Your task to perform on an android device: When is my next meeting? Image 0: 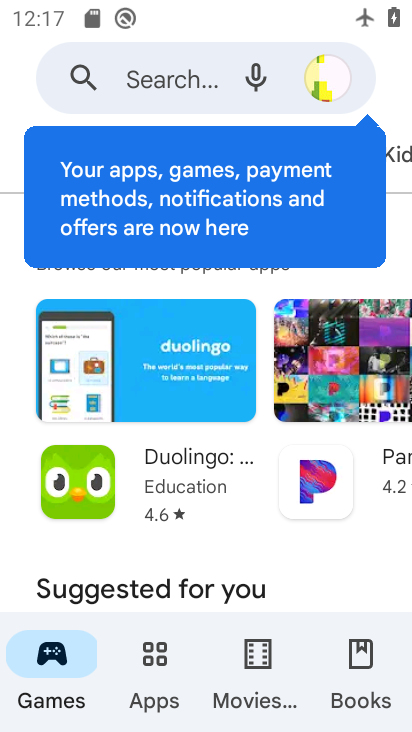
Step 0: press home button
Your task to perform on an android device: When is my next meeting? Image 1: 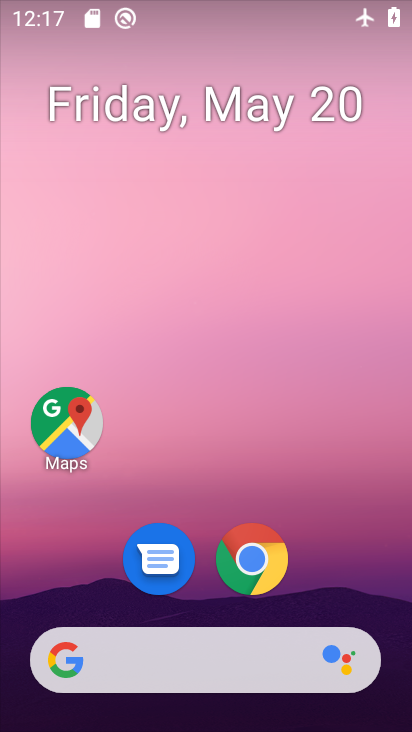
Step 1: drag from (351, 579) to (203, 78)
Your task to perform on an android device: When is my next meeting? Image 2: 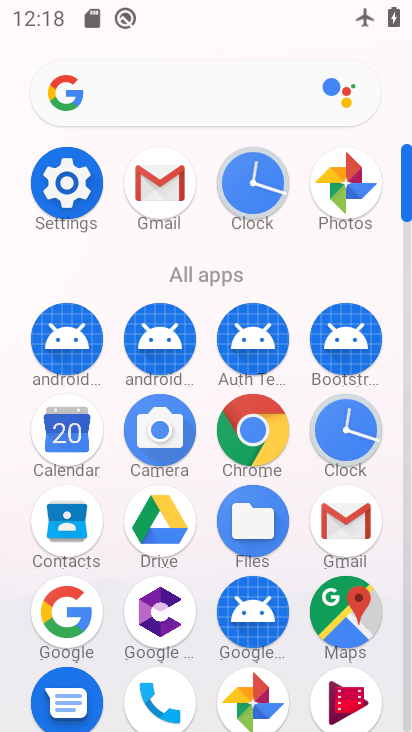
Step 2: click (68, 445)
Your task to perform on an android device: When is my next meeting? Image 3: 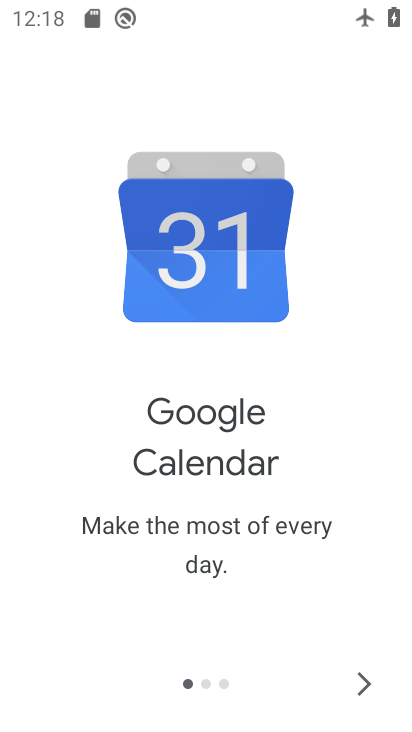
Step 3: click (368, 692)
Your task to perform on an android device: When is my next meeting? Image 4: 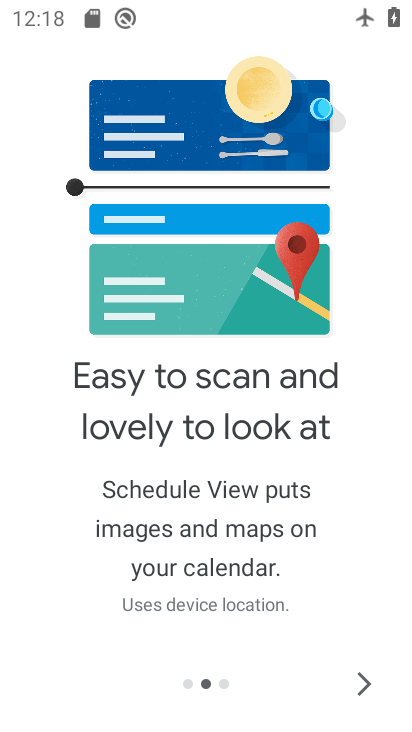
Step 4: click (366, 683)
Your task to perform on an android device: When is my next meeting? Image 5: 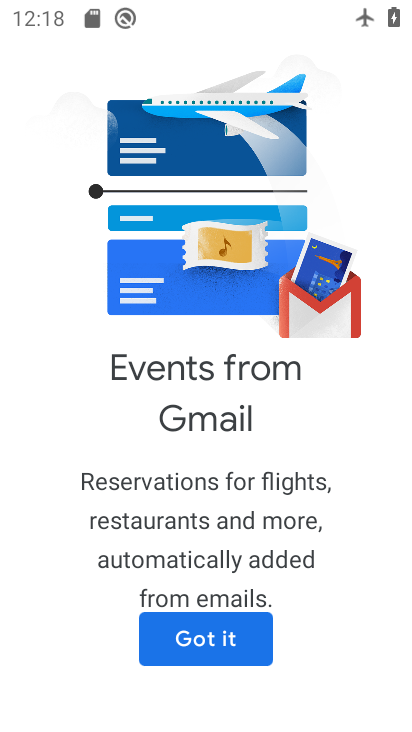
Step 5: click (224, 646)
Your task to perform on an android device: When is my next meeting? Image 6: 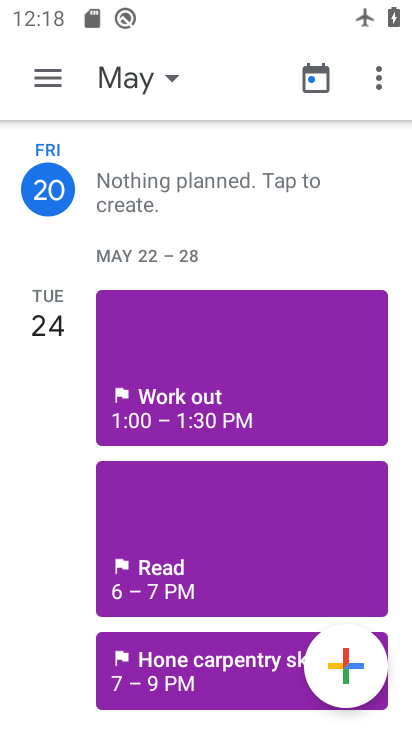
Step 6: click (49, 83)
Your task to perform on an android device: When is my next meeting? Image 7: 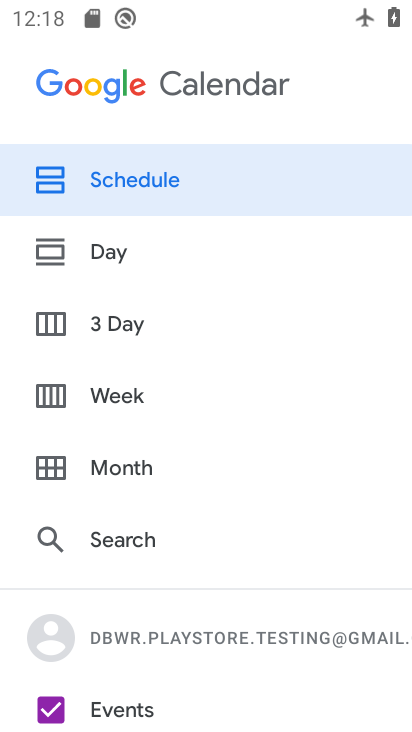
Step 7: click (109, 170)
Your task to perform on an android device: When is my next meeting? Image 8: 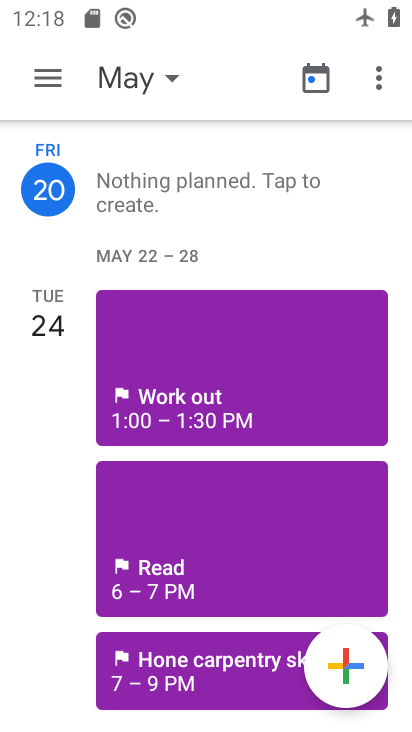
Step 8: task complete